Your task to perform on an android device: turn off translation in the chrome app Image 0: 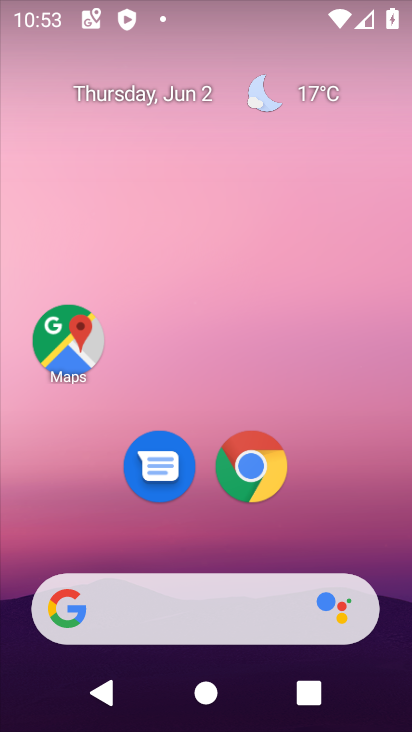
Step 0: drag from (272, 571) to (242, 193)
Your task to perform on an android device: turn off translation in the chrome app Image 1: 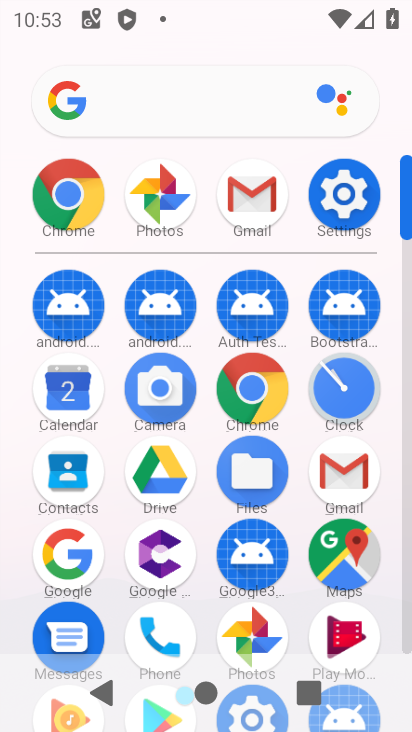
Step 1: click (243, 387)
Your task to perform on an android device: turn off translation in the chrome app Image 2: 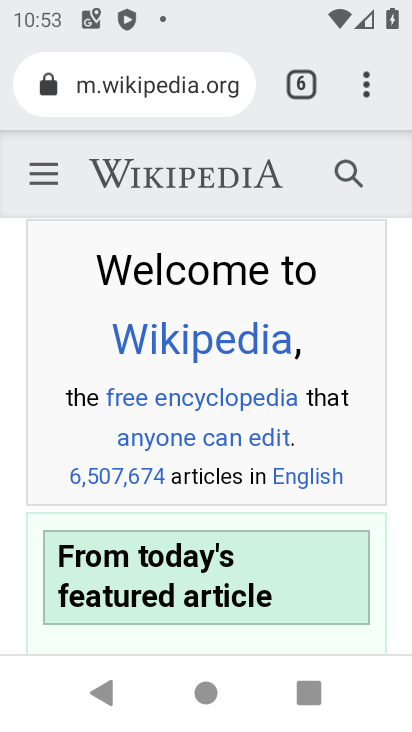
Step 2: click (386, 75)
Your task to perform on an android device: turn off translation in the chrome app Image 3: 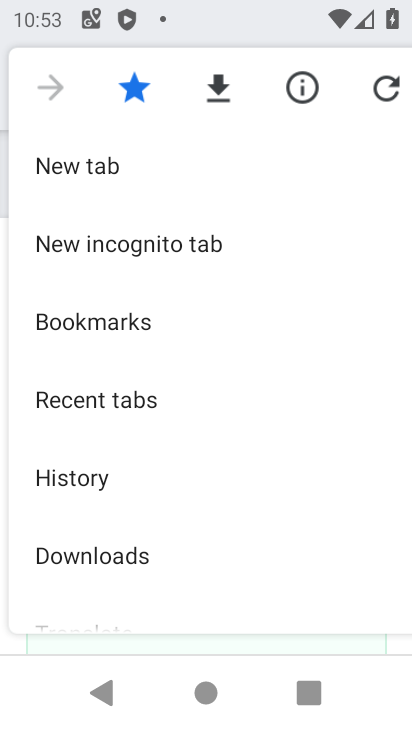
Step 3: drag from (197, 553) to (229, 166)
Your task to perform on an android device: turn off translation in the chrome app Image 4: 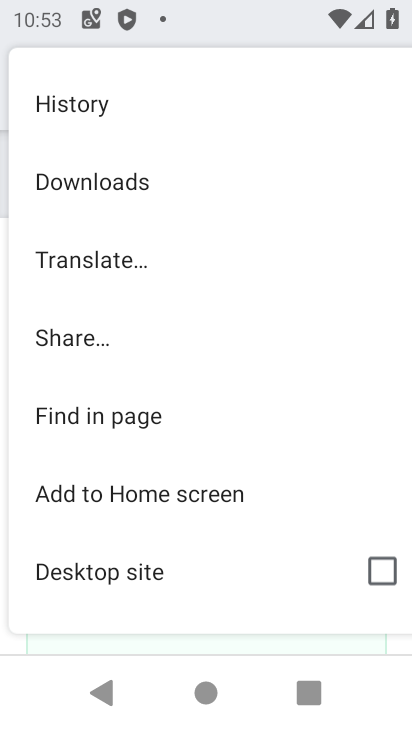
Step 4: drag from (172, 560) to (226, 279)
Your task to perform on an android device: turn off translation in the chrome app Image 5: 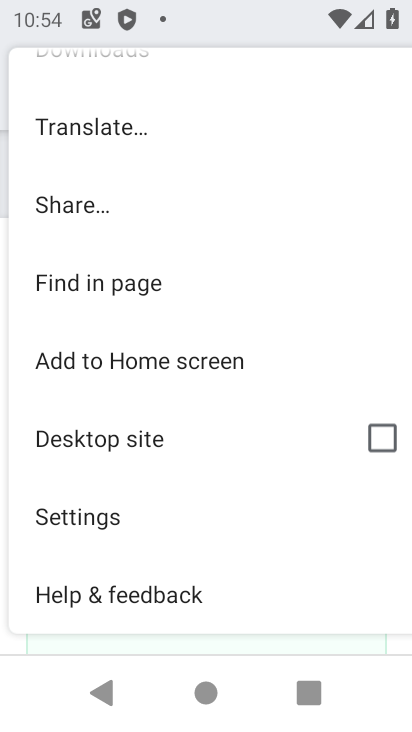
Step 5: click (131, 517)
Your task to perform on an android device: turn off translation in the chrome app Image 6: 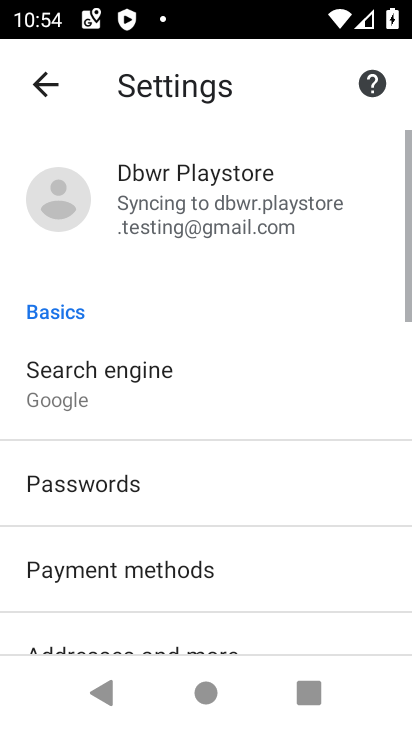
Step 6: drag from (202, 594) to (206, 261)
Your task to perform on an android device: turn off translation in the chrome app Image 7: 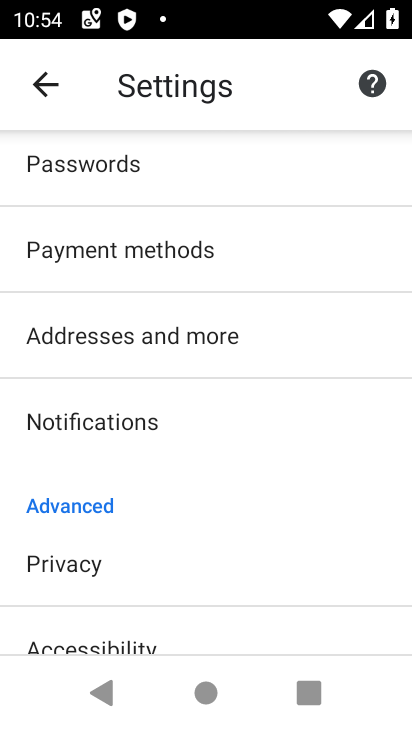
Step 7: drag from (134, 590) to (191, 286)
Your task to perform on an android device: turn off translation in the chrome app Image 8: 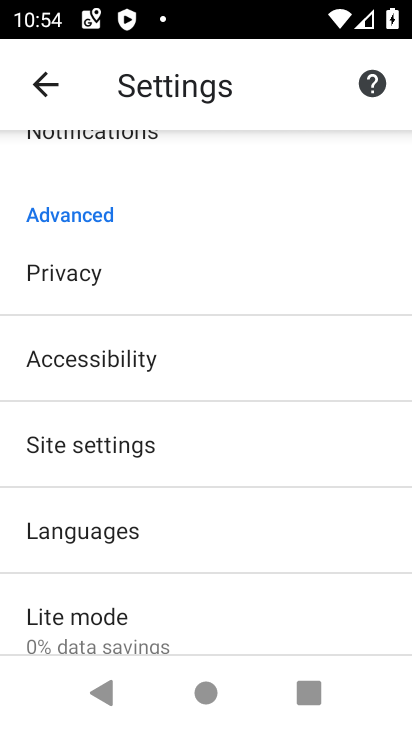
Step 8: click (163, 544)
Your task to perform on an android device: turn off translation in the chrome app Image 9: 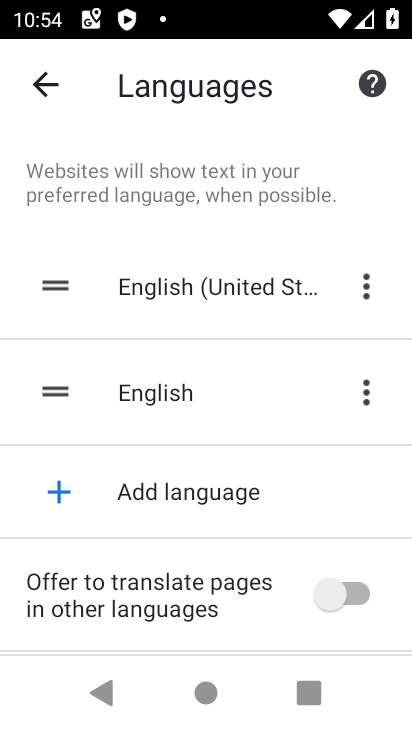
Step 9: task complete